Your task to perform on an android device: find which apps use the phone's location Image 0: 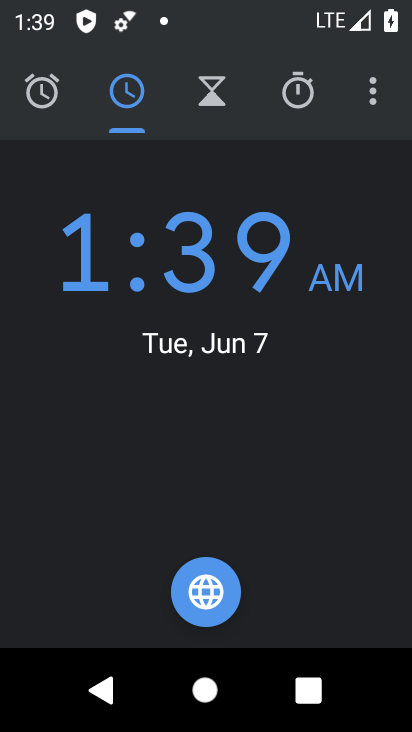
Step 0: press home button
Your task to perform on an android device: find which apps use the phone's location Image 1: 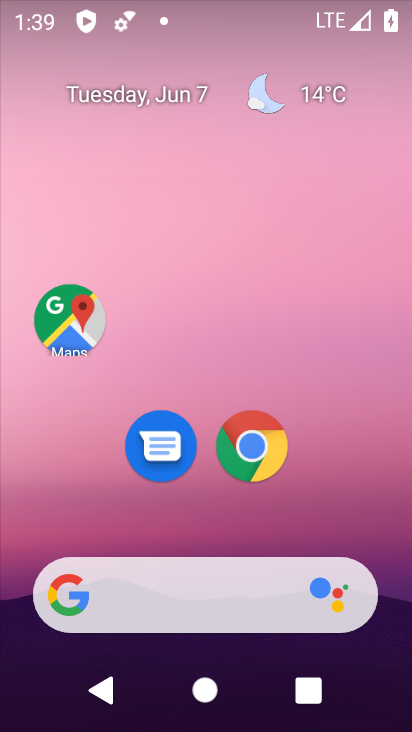
Step 1: drag from (200, 581) to (235, 12)
Your task to perform on an android device: find which apps use the phone's location Image 2: 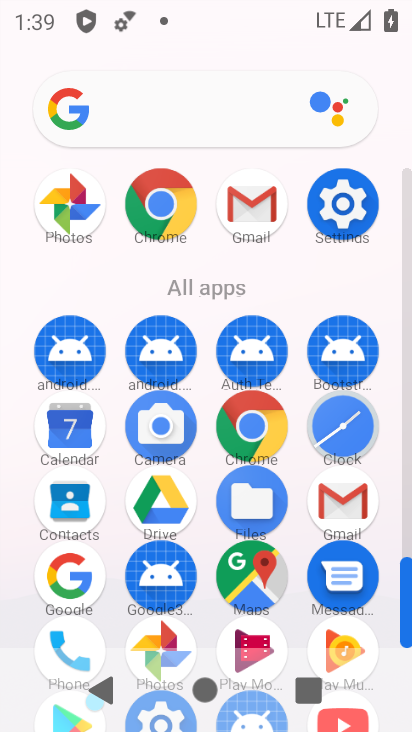
Step 2: click (353, 212)
Your task to perform on an android device: find which apps use the phone's location Image 3: 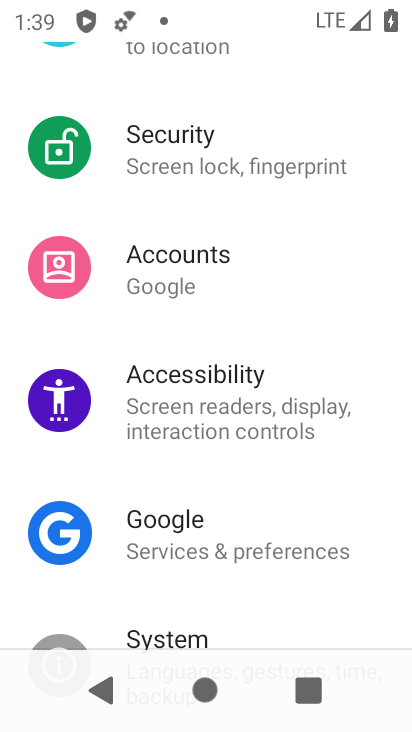
Step 3: drag from (229, 175) to (223, 646)
Your task to perform on an android device: find which apps use the phone's location Image 4: 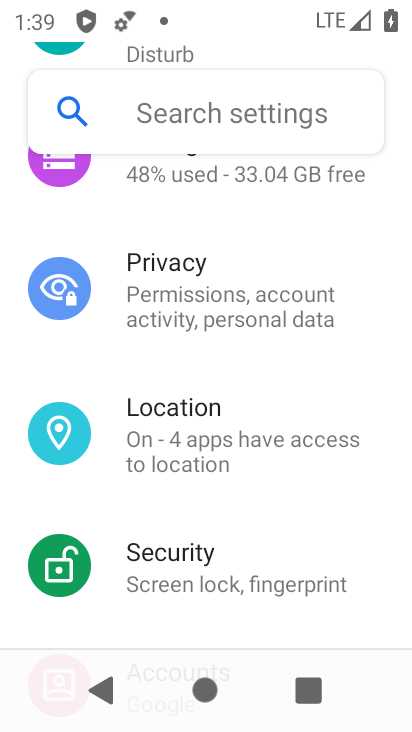
Step 4: click (170, 426)
Your task to perform on an android device: find which apps use the phone's location Image 5: 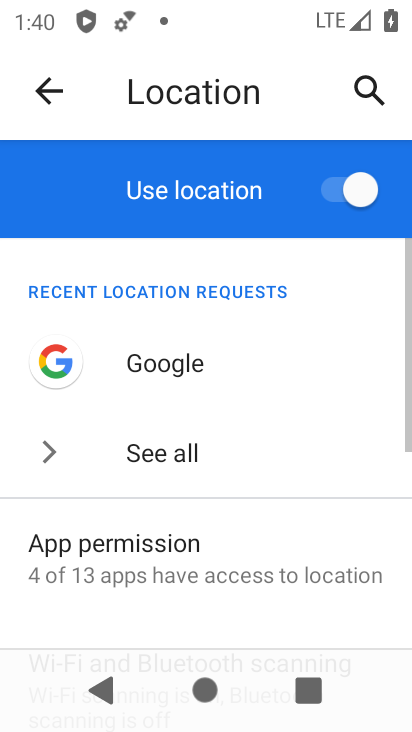
Step 5: click (187, 551)
Your task to perform on an android device: find which apps use the phone's location Image 6: 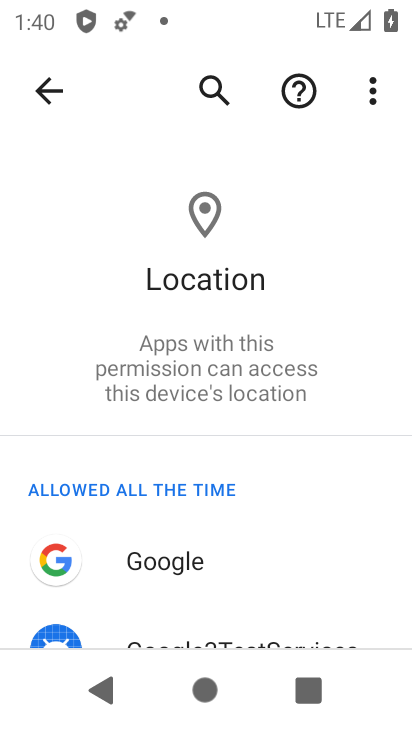
Step 6: task complete